Your task to perform on an android device: turn smart compose on in the gmail app Image 0: 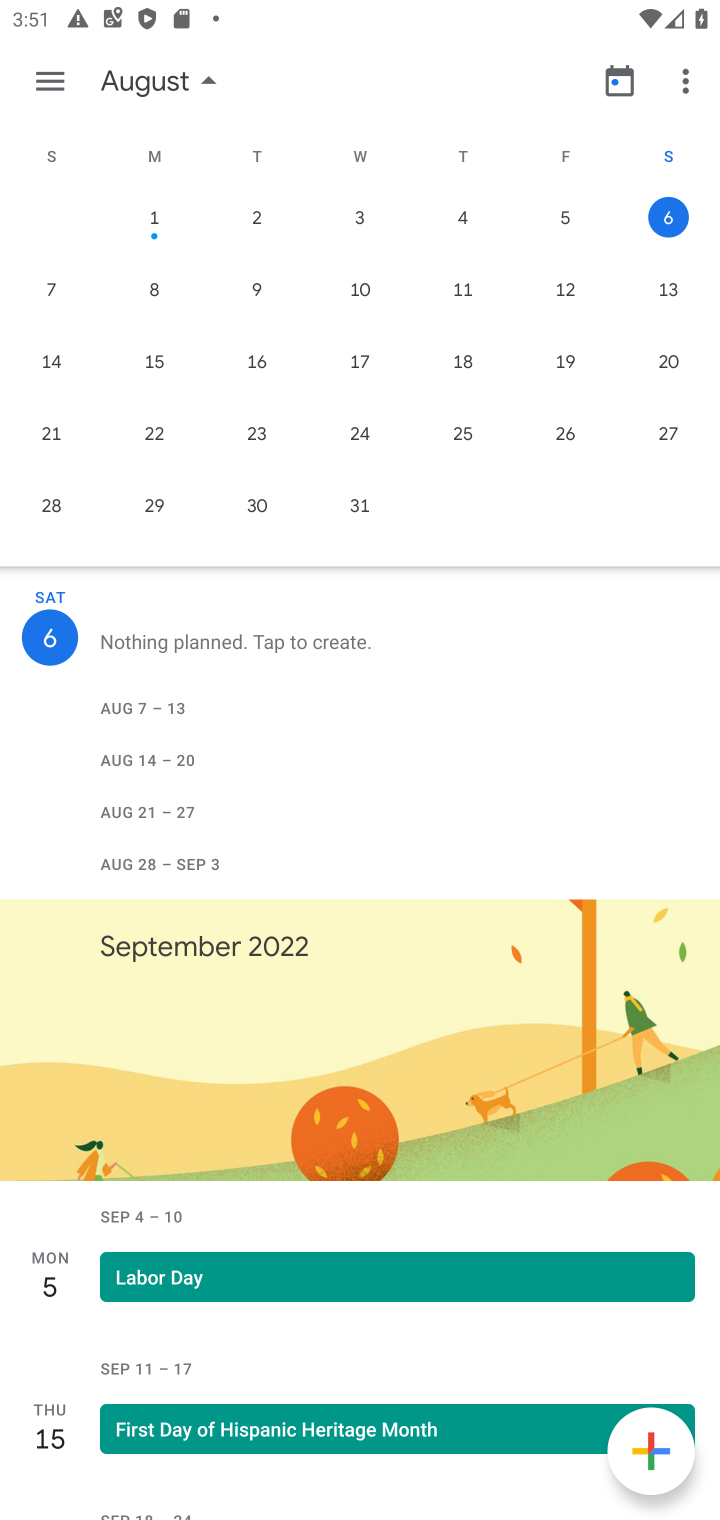
Step 0: press home button
Your task to perform on an android device: turn smart compose on in the gmail app Image 1: 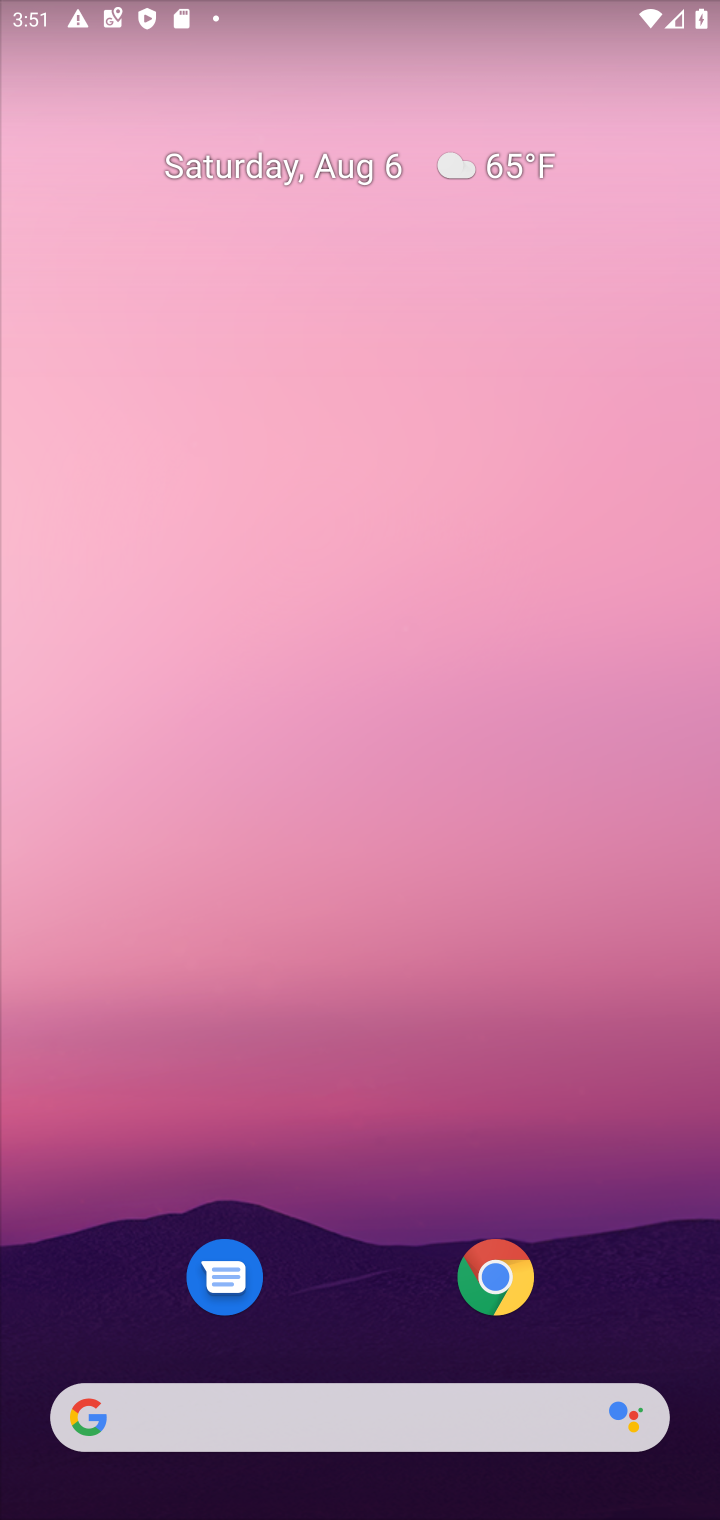
Step 1: drag from (476, 1431) to (539, 4)
Your task to perform on an android device: turn smart compose on in the gmail app Image 2: 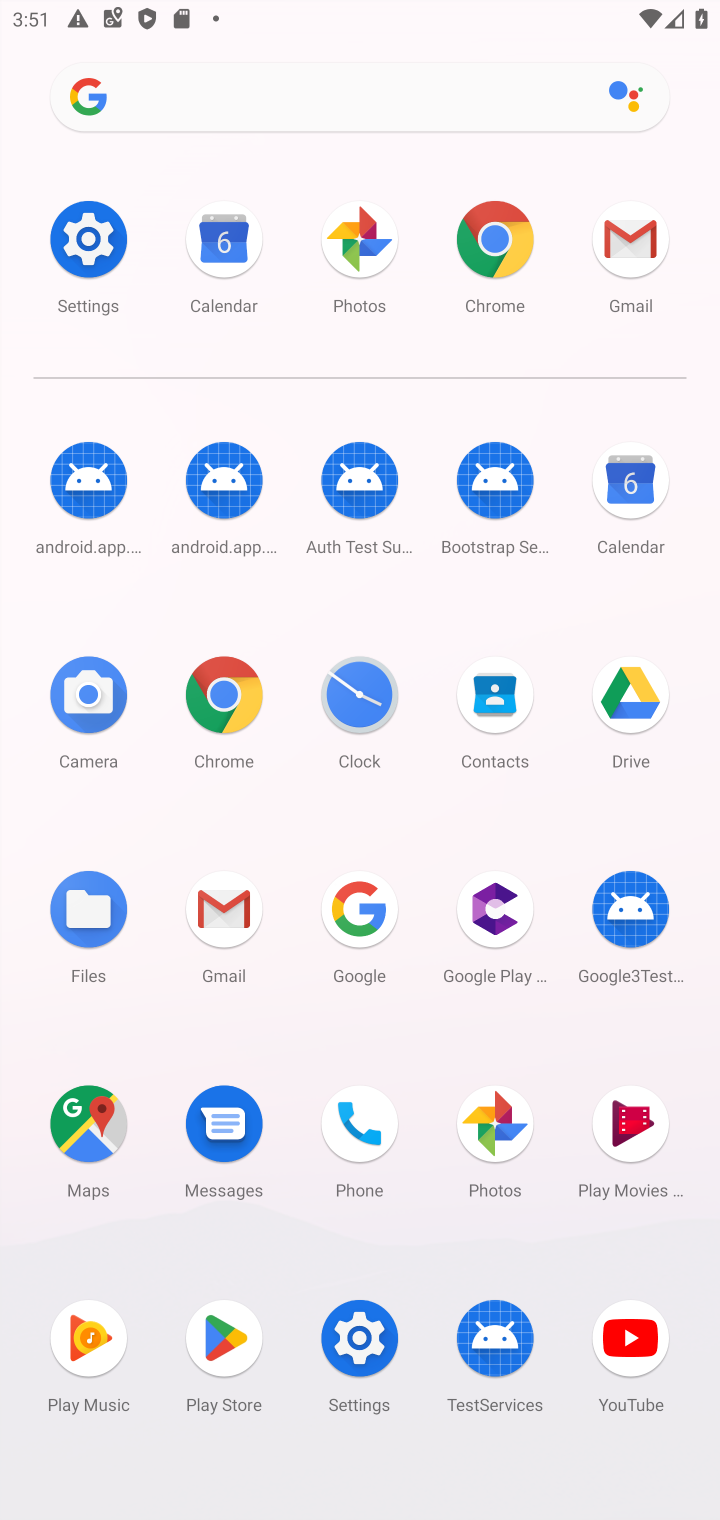
Step 2: click (229, 906)
Your task to perform on an android device: turn smart compose on in the gmail app Image 3: 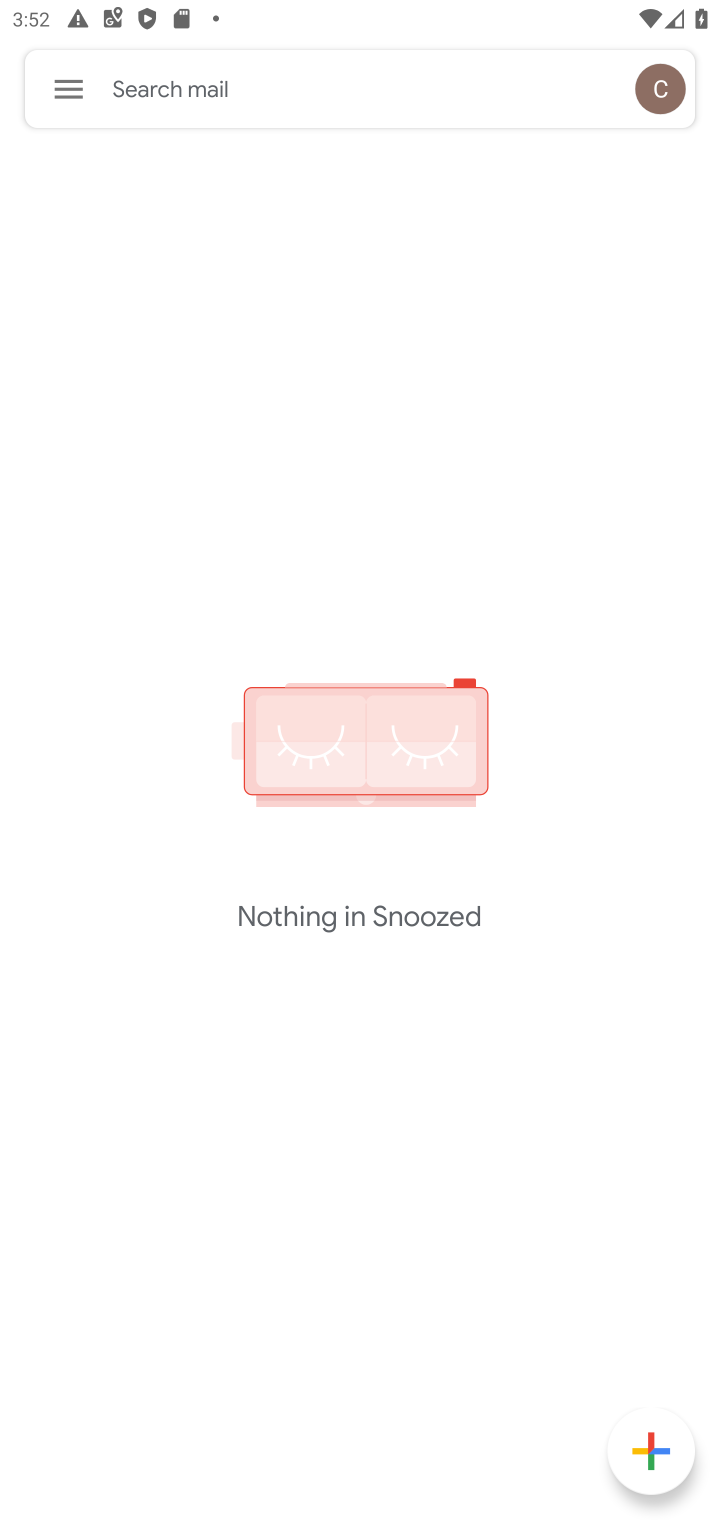
Step 3: click (66, 80)
Your task to perform on an android device: turn smart compose on in the gmail app Image 4: 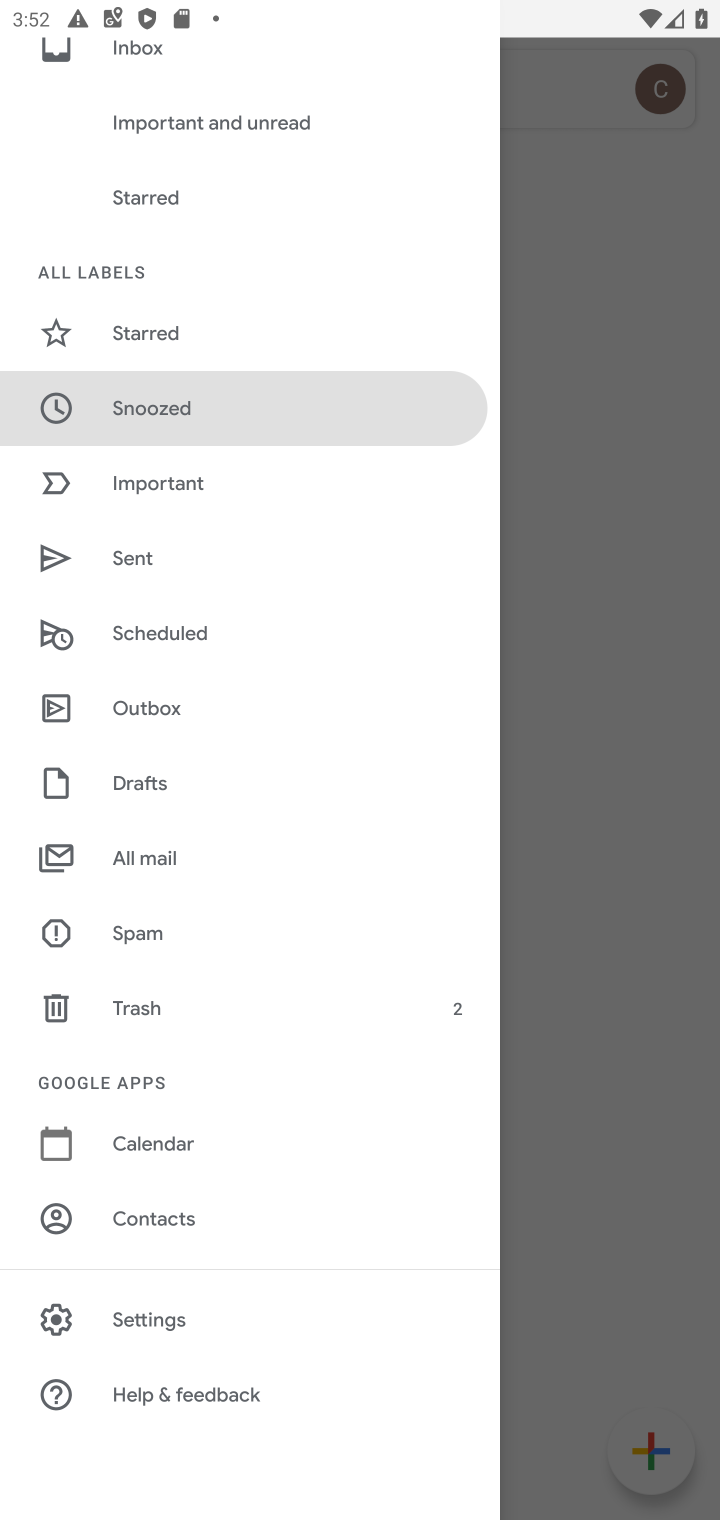
Step 4: click (181, 1323)
Your task to perform on an android device: turn smart compose on in the gmail app Image 5: 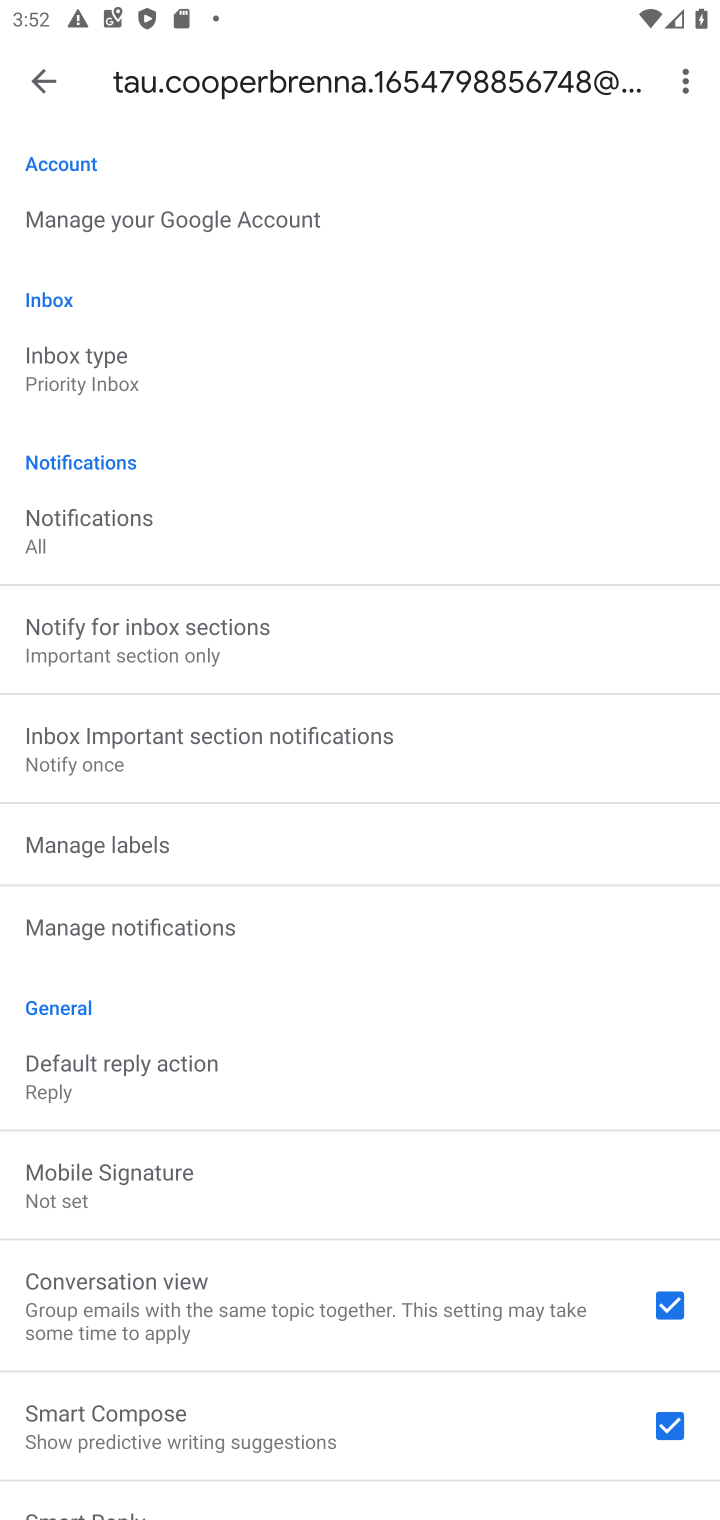
Step 5: task complete